Your task to perform on an android device: turn off wifi Image 0: 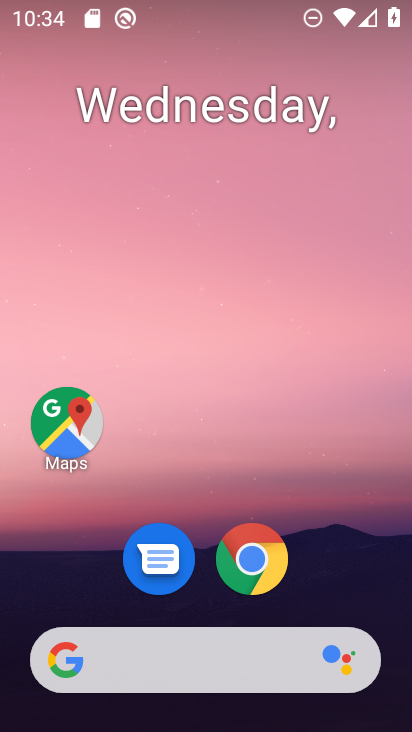
Step 0: drag from (358, 587) to (332, 183)
Your task to perform on an android device: turn off wifi Image 1: 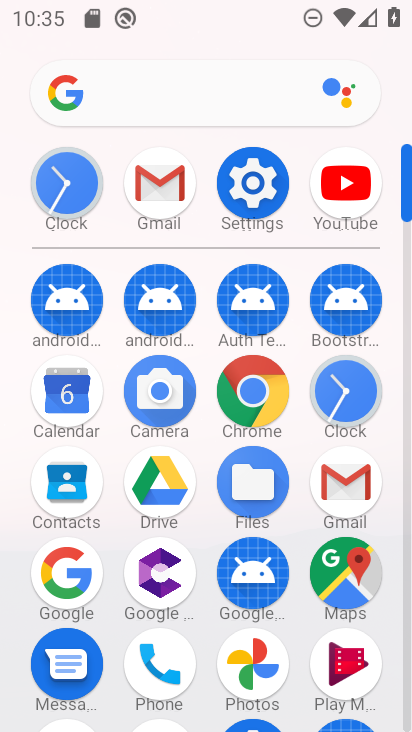
Step 1: click (264, 188)
Your task to perform on an android device: turn off wifi Image 2: 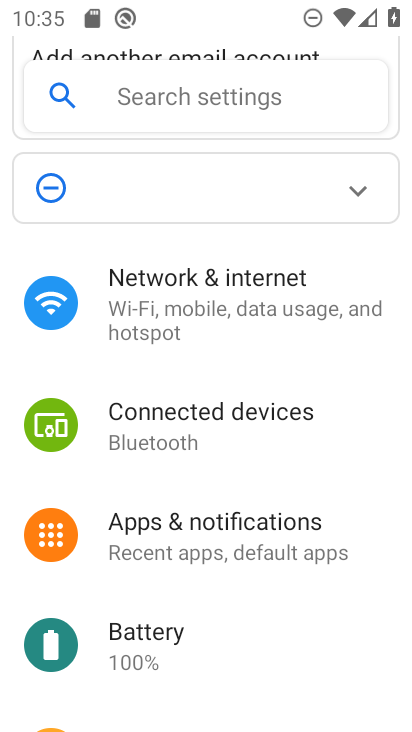
Step 2: drag from (370, 489) to (375, 353)
Your task to perform on an android device: turn off wifi Image 3: 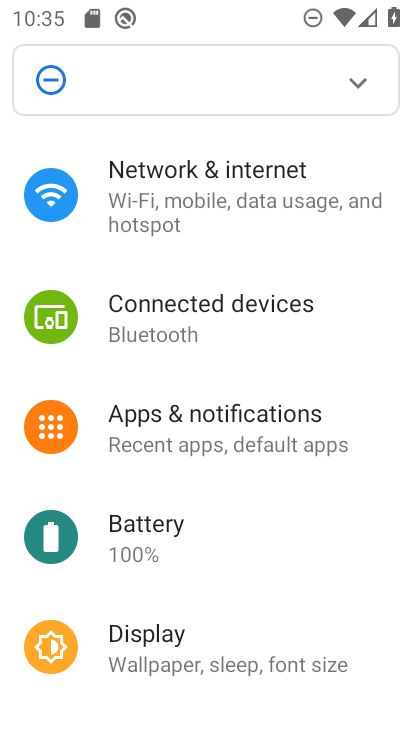
Step 3: drag from (371, 525) to (367, 402)
Your task to perform on an android device: turn off wifi Image 4: 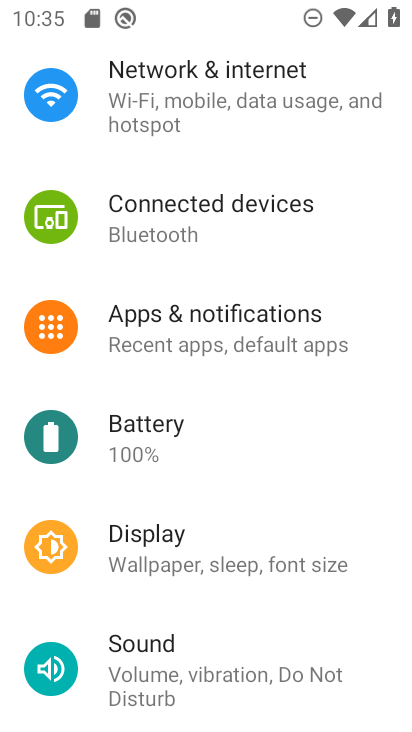
Step 4: drag from (371, 486) to (365, 346)
Your task to perform on an android device: turn off wifi Image 5: 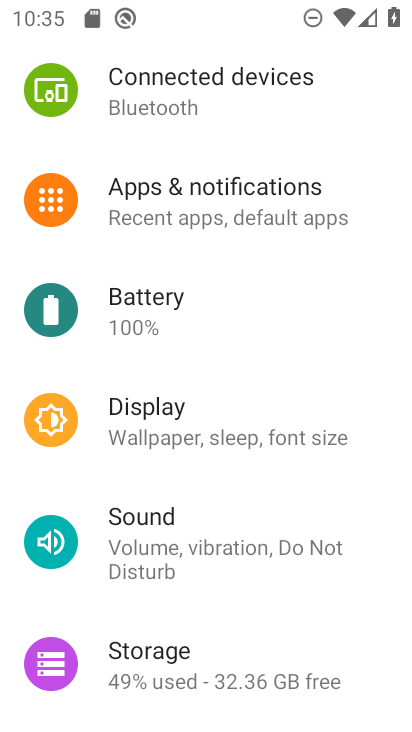
Step 5: drag from (366, 534) to (387, 386)
Your task to perform on an android device: turn off wifi Image 6: 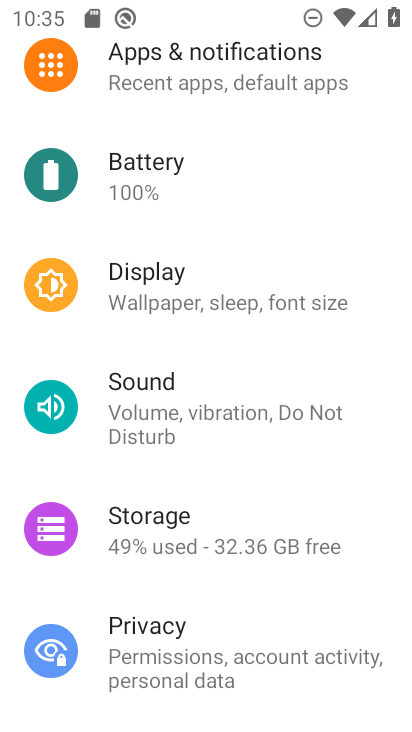
Step 6: drag from (369, 586) to (369, 441)
Your task to perform on an android device: turn off wifi Image 7: 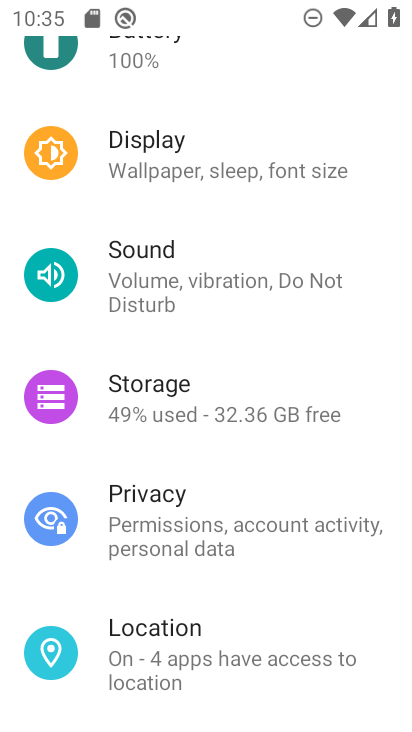
Step 7: drag from (383, 261) to (369, 361)
Your task to perform on an android device: turn off wifi Image 8: 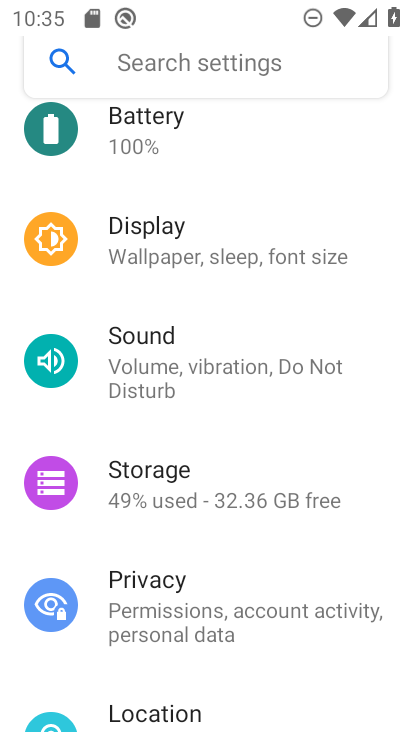
Step 8: drag from (381, 223) to (378, 335)
Your task to perform on an android device: turn off wifi Image 9: 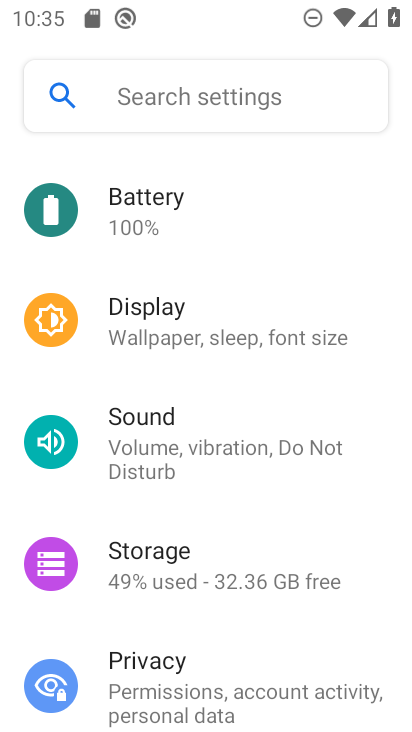
Step 9: drag from (366, 212) to (363, 315)
Your task to perform on an android device: turn off wifi Image 10: 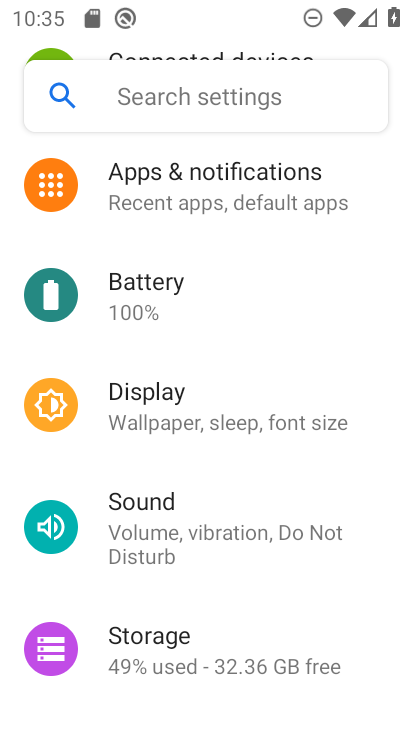
Step 10: drag from (367, 183) to (380, 329)
Your task to perform on an android device: turn off wifi Image 11: 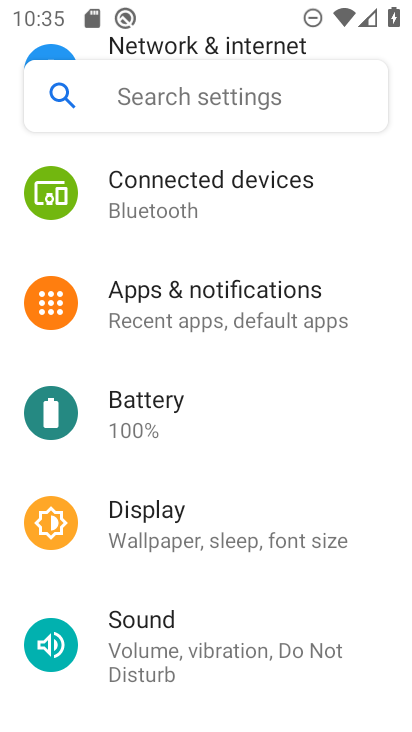
Step 11: drag from (372, 200) to (371, 296)
Your task to perform on an android device: turn off wifi Image 12: 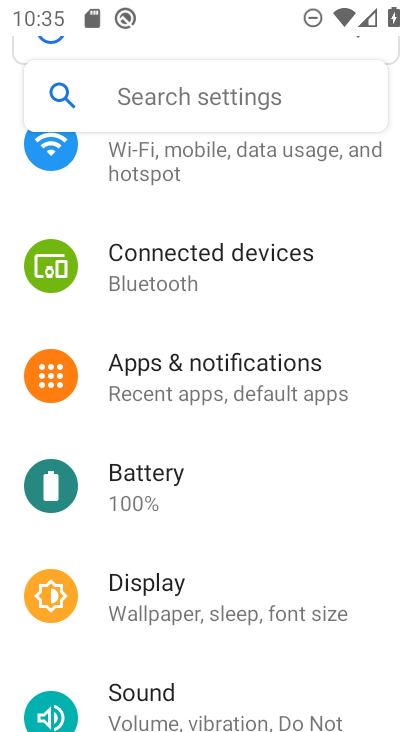
Step 12: drag from (368, 201) to (367, 325)
Your task to perform on an android device: turn off wifi Image 13: 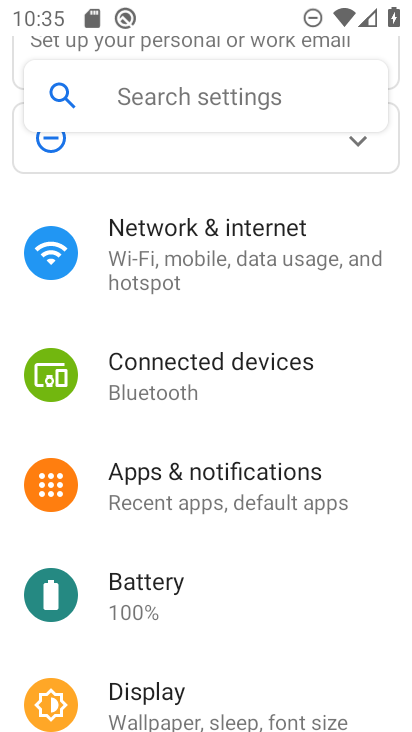
Step 13: click (356, 232)
Your task to perform on an android device: turn off wifi Image 14: 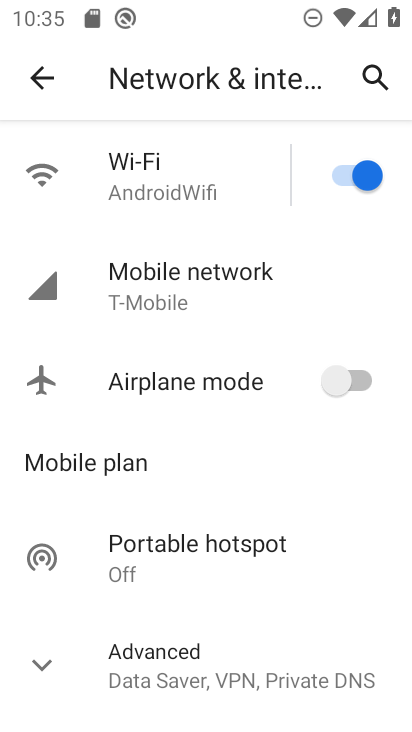
Step 14: click (354, 180)
Your task to perform on an android device: turn off wifi Image 15: 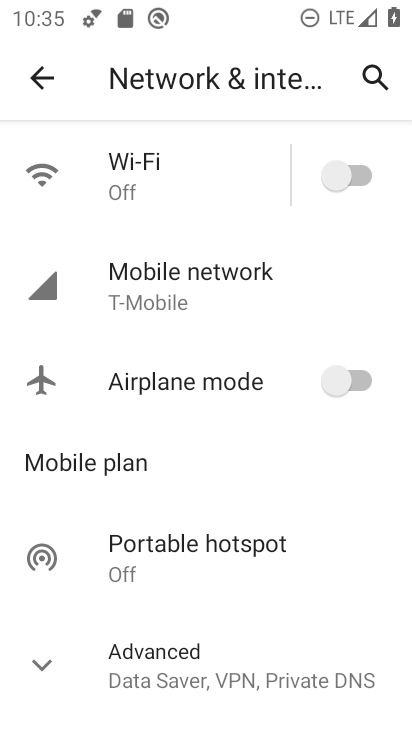
Step 15: task complete